Your task to perform on an android device: Show me productivity apps on the Play Store Image 0: 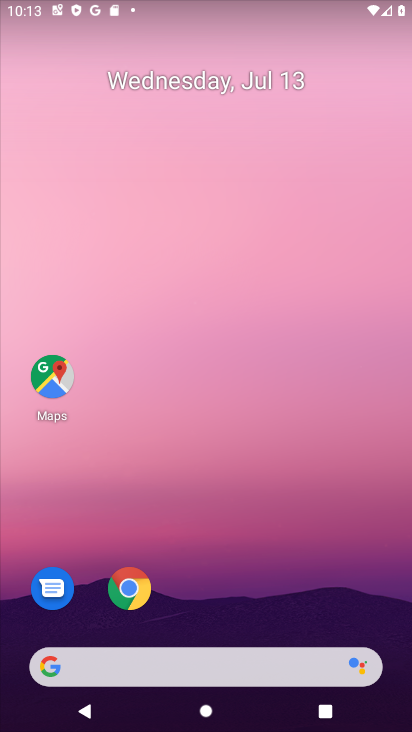
Step 0: drag from (215, 618) to (249, 39)
Your task to perform on an android device: Show me productivity apps on the Play Store Image 1: 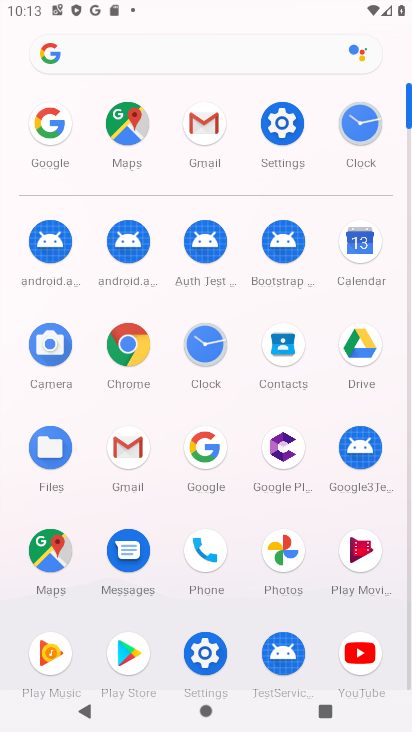
Step 1: click (129, 659)
Your task to perform on an android device: Show me productivity apps on the Play Store Image 2: 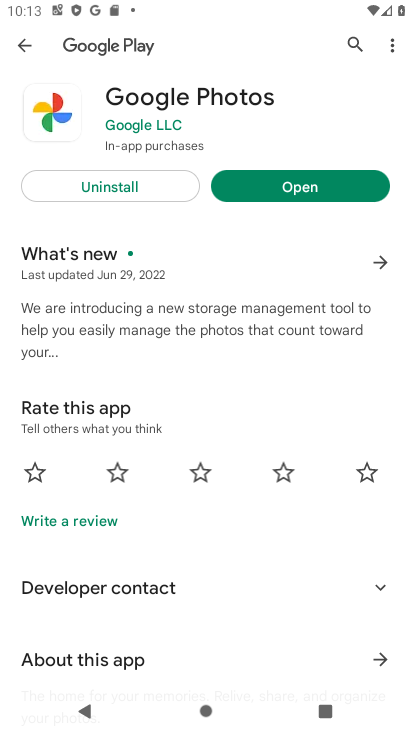
Step 2: press back button
Your task to perform on an android device: Show me productivity apps on the Play Store Image 3: 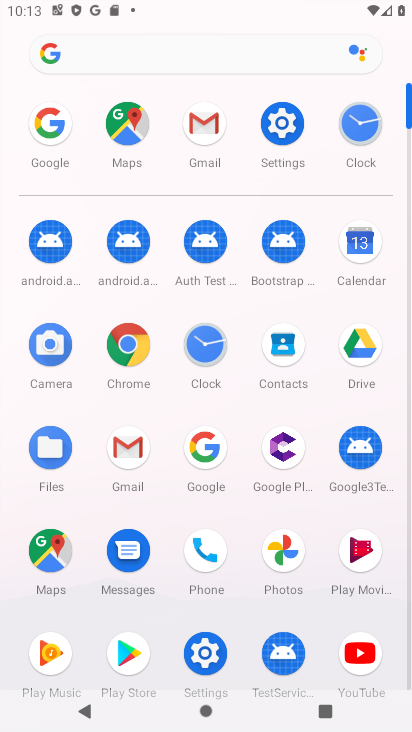
Step 3: click (132, 659)
Your task to perform on an android device: Show me productivity apps on the Play Store Image 4: 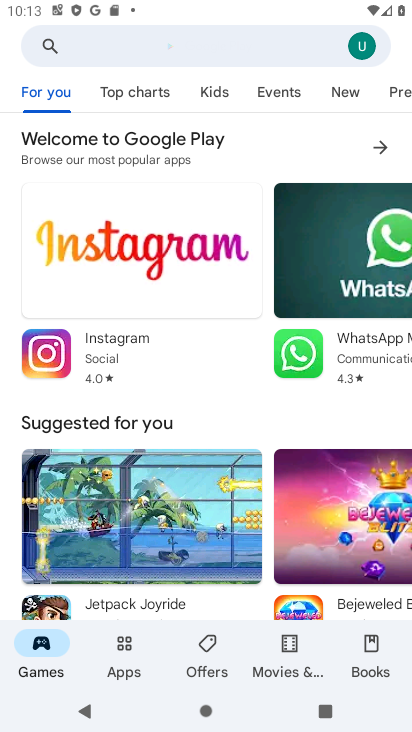
Step 4: click (127, 655)
Your task to perform on an android device: Show me productivity apps on the Play Store Image 5: 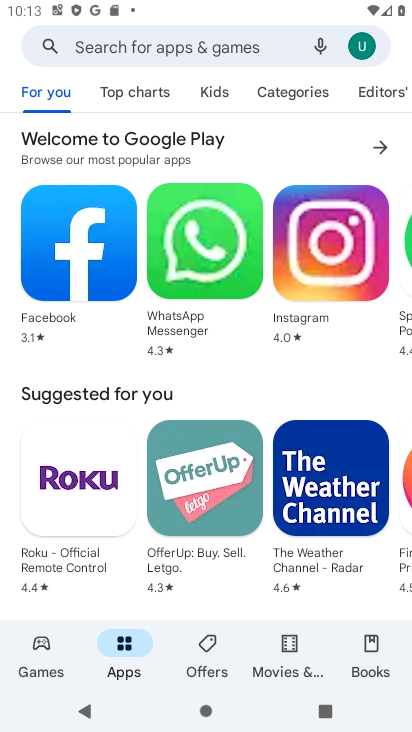
Step 5: click (301, 83)
Your task to perform on an android device: Show me productivity apps on the Play Store Image 6: 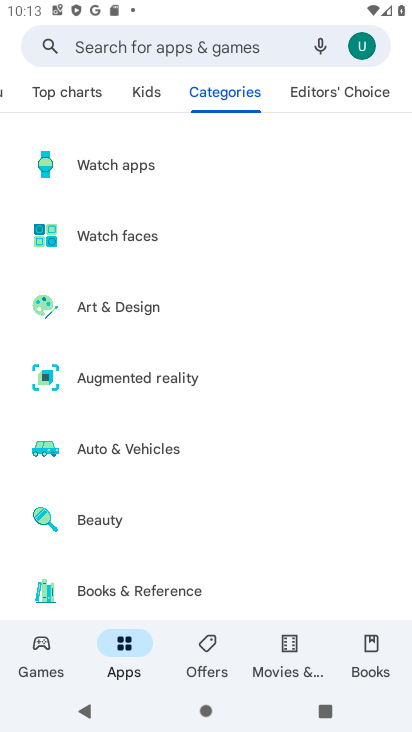
Step 6: drag from (242, 542) to (284, 30)
Your task to perform on an android device: Show me productivity apps on the Play Store Image 7: 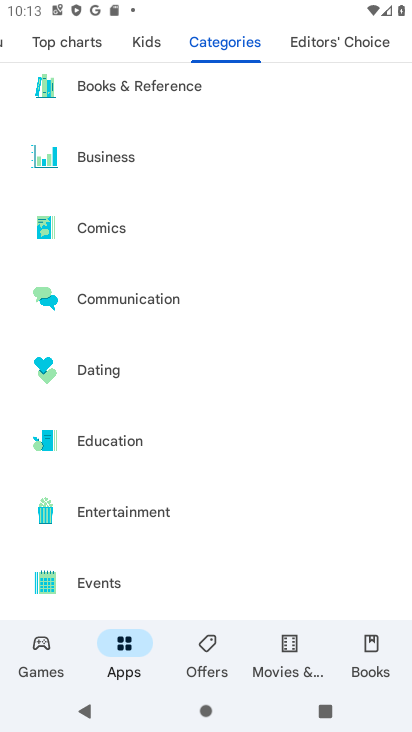
Step 7: drag from (248, 558) to (257, 93)
Your task to perform on an android device: Show me productivity apps on the Play Store Image 8: 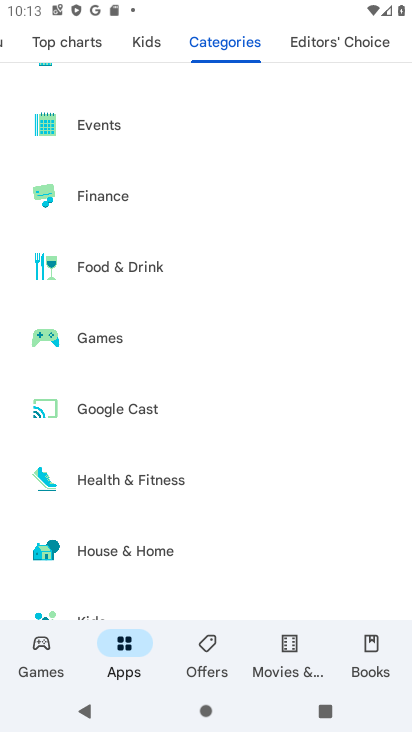
Step 8: drag from (249, 538) to (269, 113)
Your task to perform on an android device: Show me productivity apps on the Play Store Image 9: 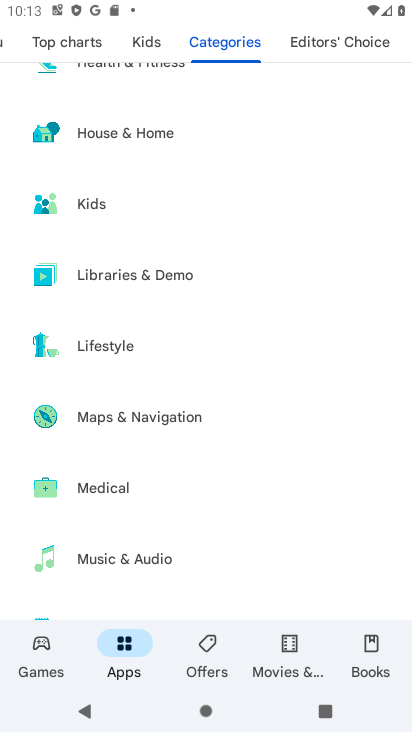
Step 9: drag from (220, 583) to (254, 154)
Your task to perform on an android device: Show me productivity apps on the Play Store Image 10: 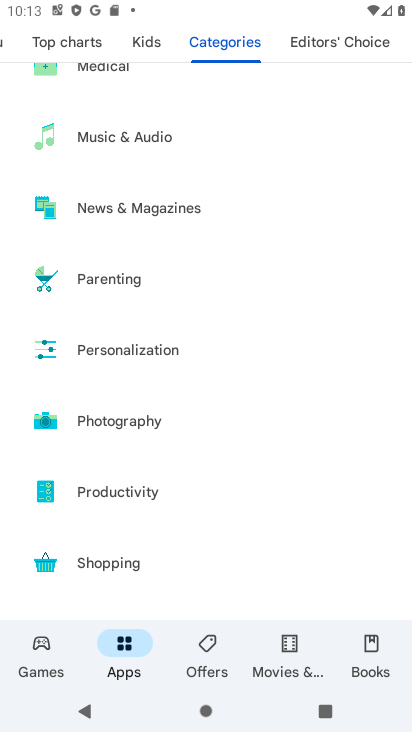
Step 10: click (112, 495)
Your task to perform on an android device: Show me productivity apps on the Play Store Image 11: 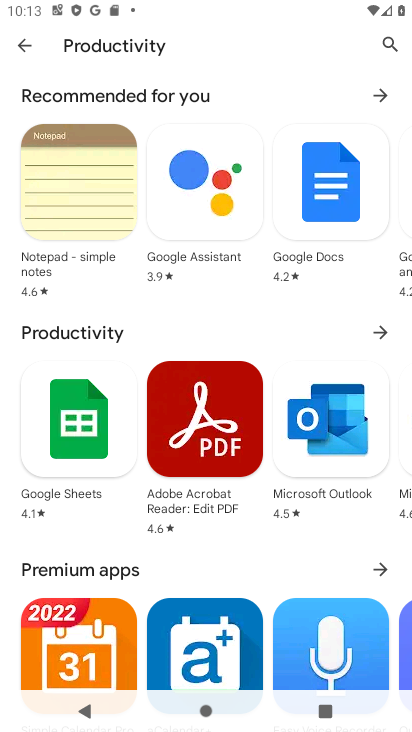
Step 11: task complete